Your task to perform on an android device: move a message to another label in the gmail app Image 0: 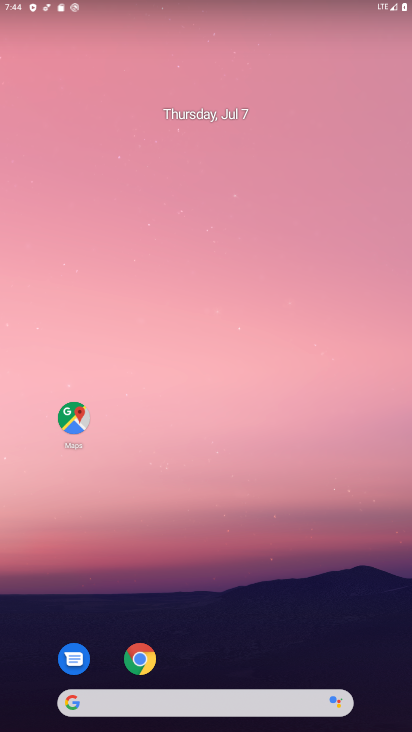
Step 0: drag from (254, 688) to (250, 371)
Your task to perform on an android device: move a message to another label in the gmail app Image 1: 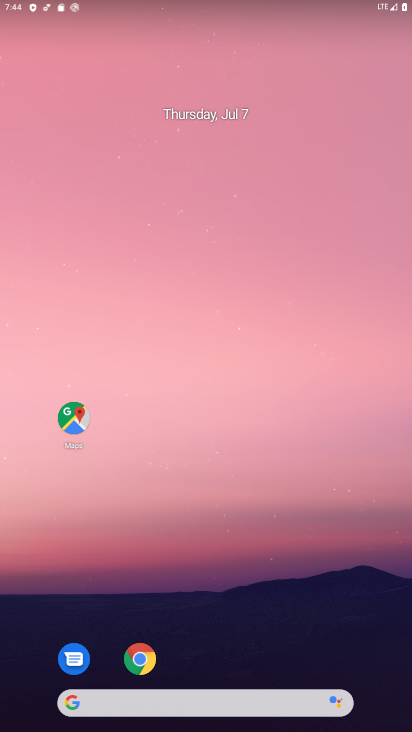
Step 1: drag from (196, 693) to (184, 300)
Your task to perform on an android device: move a message to another label in the gmail app Image 2: 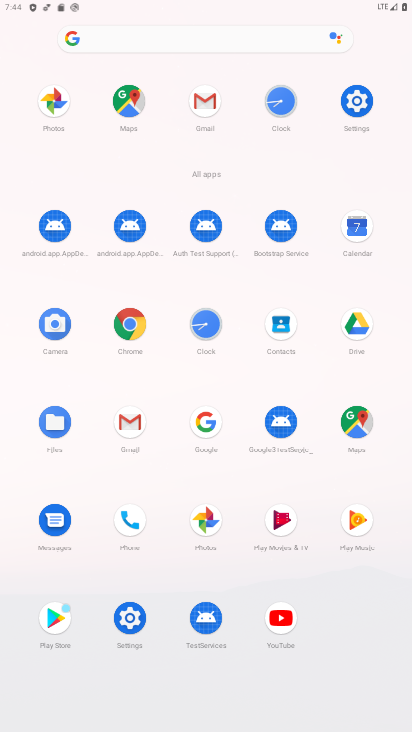
Step 2: click (207, 97)
Your task to perform on an android device: move a message to another label in the gmail app Image 3: 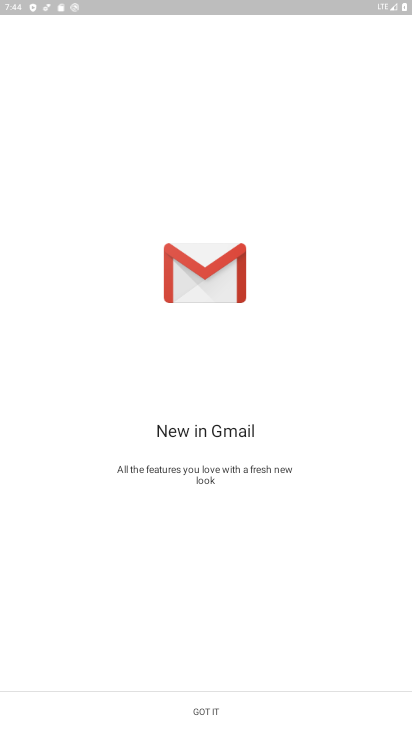
Step 3: click (202, 710)
Your task to perform on an android device: move a message to another label in the gmail app Image 4: 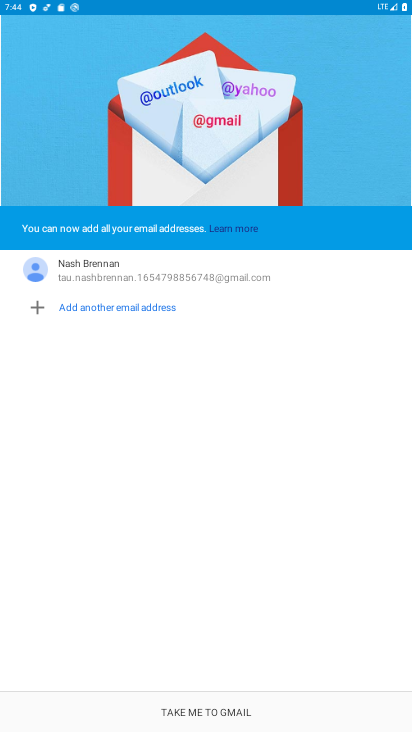
Step 4: click (202, 710)
Your task to perform on an android device: move a message to another label in the gmail app Image 5: 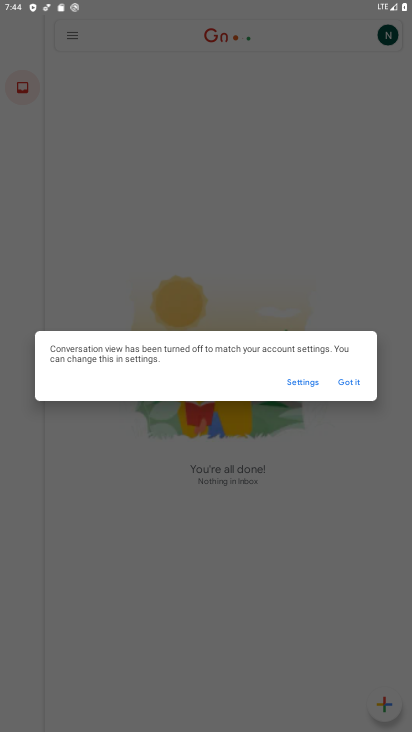
Step 5: click (339, 383)
Your task to perform on an android device: move a message to another label in the gmail app Image 6: 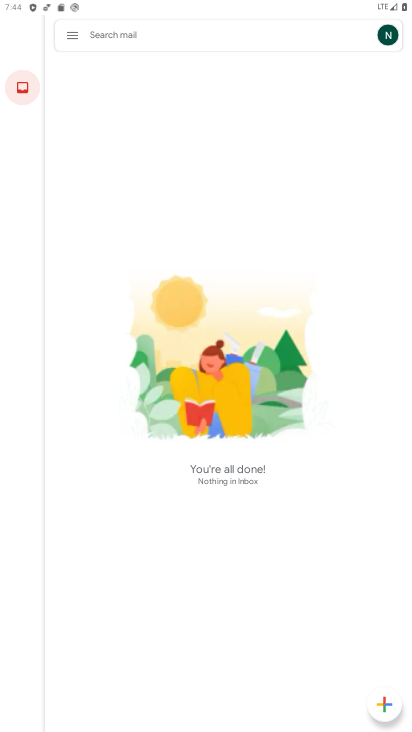
Step 6: task complete